Your task to perform on an android device: turn off notifications in google photos Image 0: 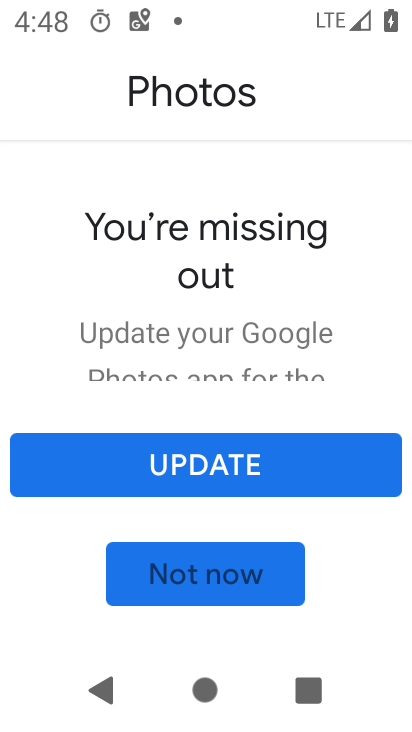
Step 0: press home button
Your task to perform on an android device: turn off notifications in google photos Image 1: 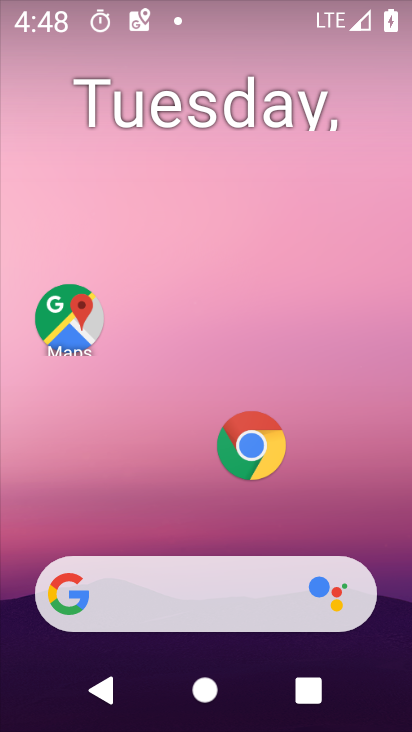
Step 1: drag from (193, 493) to (181, 4)
Your task to perform on an android device: turn off notifications in google photos Image 2: 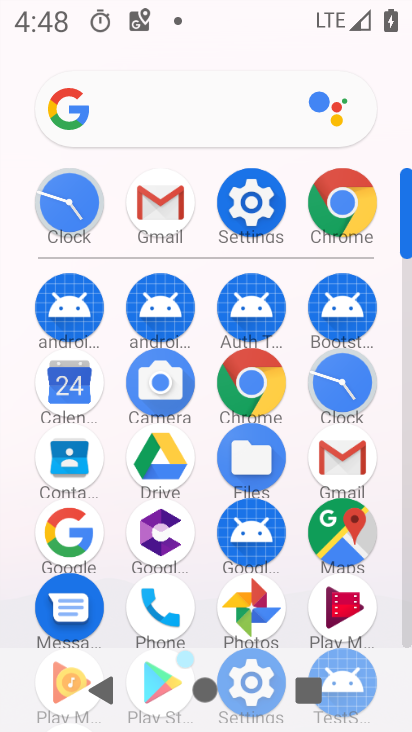
Step 2: click (244, 615)
Your task to perform on an android device: turn off notifications in google photos Image 3: 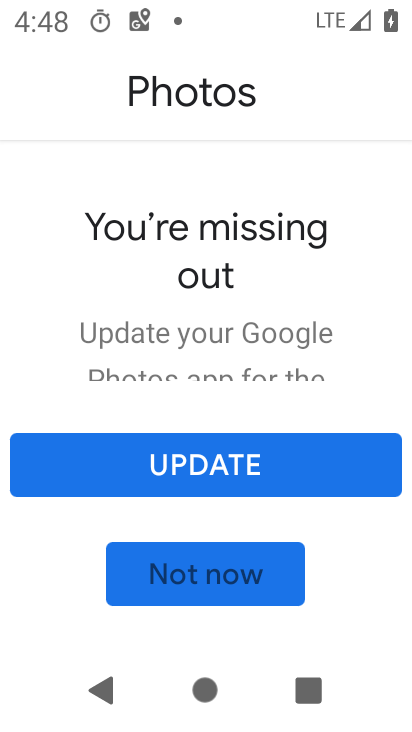
Step 3: click (222, 588)
Your task to perform on an android device: turn off notifications in google photos Image 4: 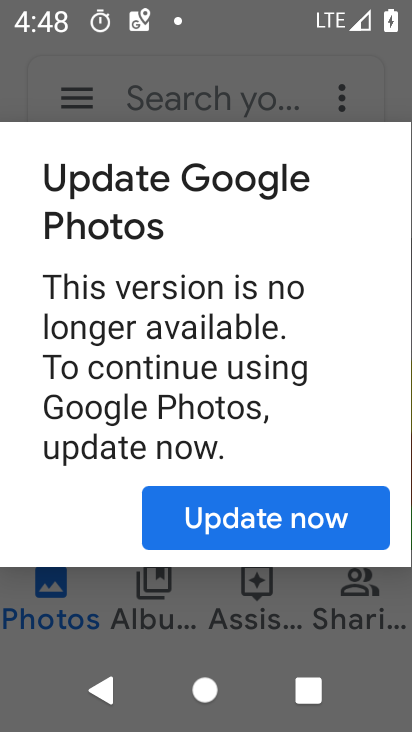
Step 4: click (290, 527)
Your task to perform on an android device: turn off notifications in google photos Image 5: 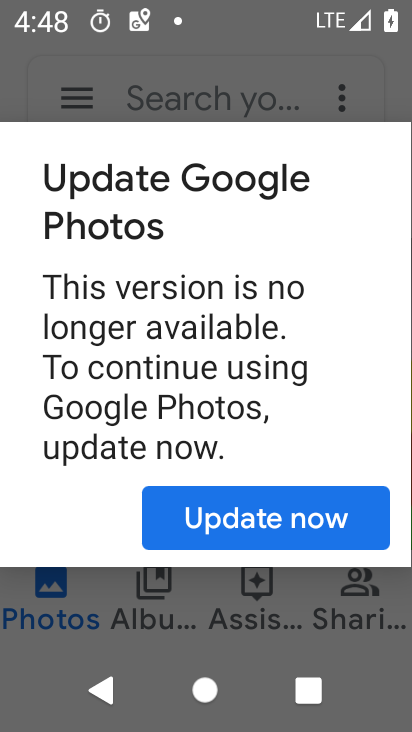
Step 5: click (294, 509)
Your task to perform on an android device: turn off notifications in google photos Image 6: 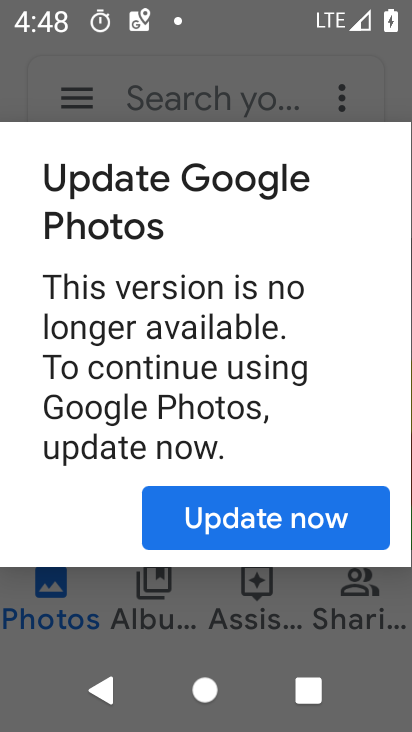
Step 6: click (294, 509)
Your task to perform on an android device: turn off notifications in google photos Image 7: 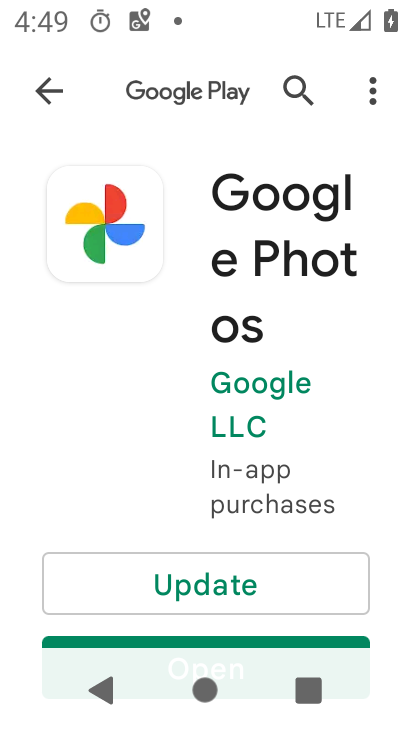
Step 7: drag from (232, 592) to (252, 173)
Your task to perform on an android device: turn off notifications in google photos Image 8: 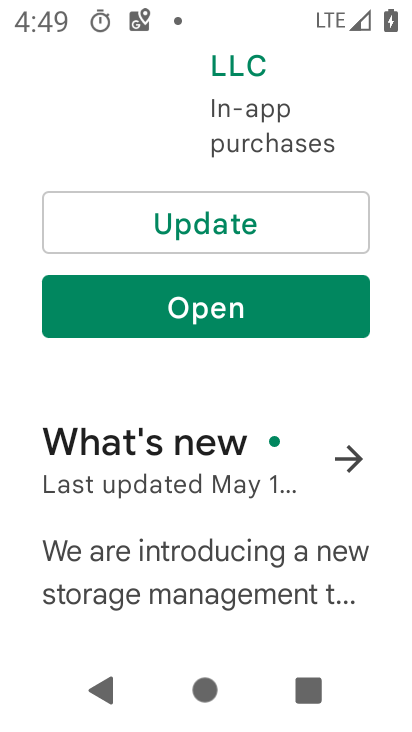
Step 8: click (213, 316)
Your task to perform on an android device: turn off notifications in google photos Image 9: 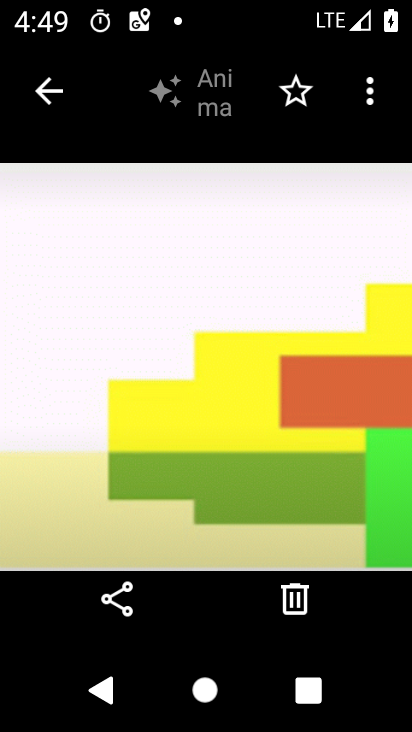
Step 9: click (62, 76)
Your task to perform on an android device: turn off notifications in google photos Image 10: 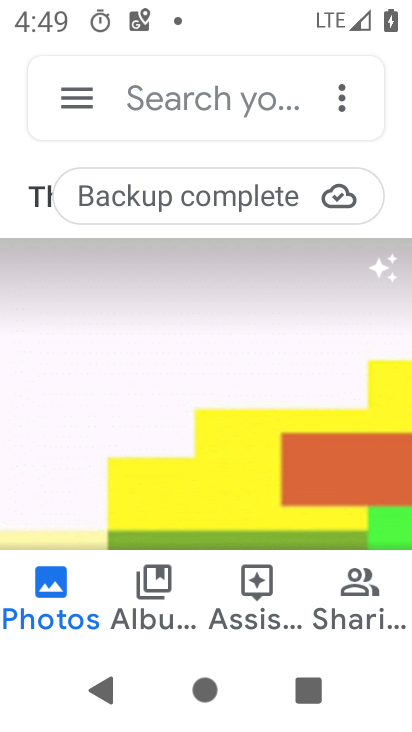
Step 10: click (64, 94)
Your task to perform on an android device: turn off notifications in google photos Image 11: 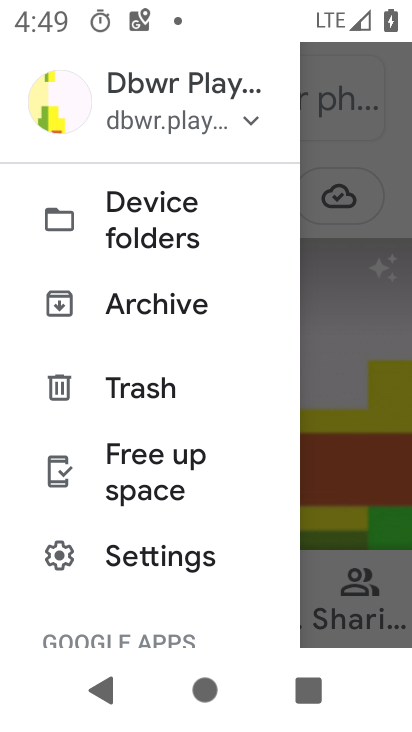
Step 11: click (140, 562)
Your task to perform on an android device: turn off notifications in google photos Image 12: 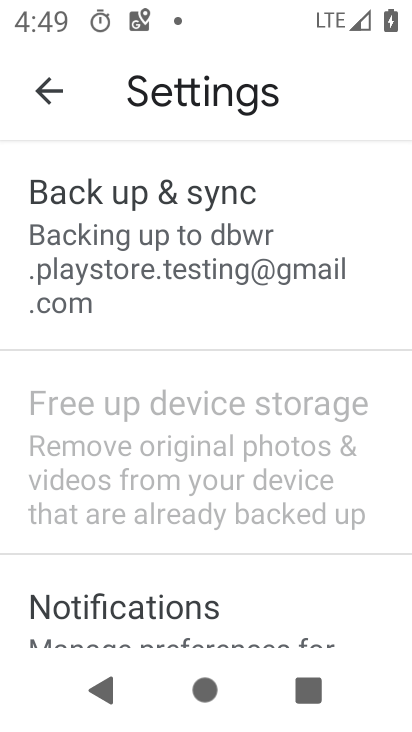
Step 12: drag from (216, 543) to (248, 213)
Your task to perform on an android device: turn off notifications in google photos Image 13: 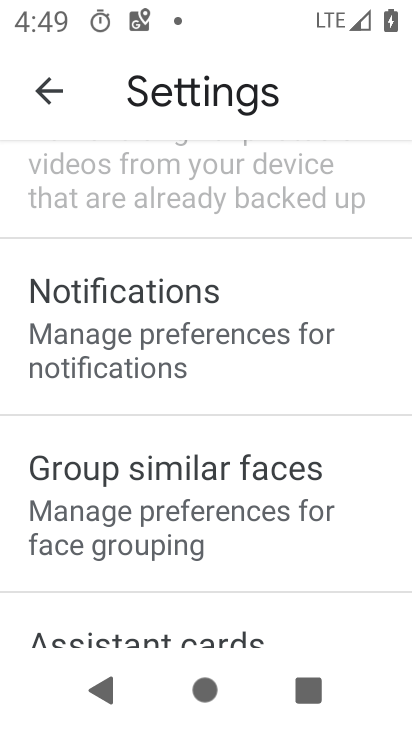
Step 13: click (149, 328)
Your task to perform on an android device: turn off notifications in google photos Image 14: 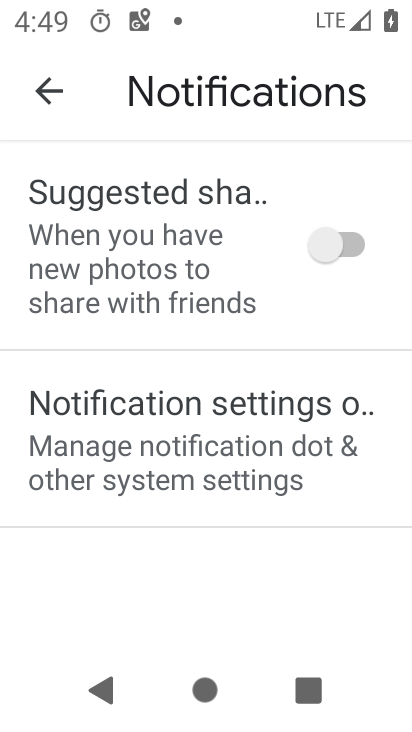
Step 14: click (193, 435)
Your task to perform on an android device: turn off notifications in google photos Image 15: 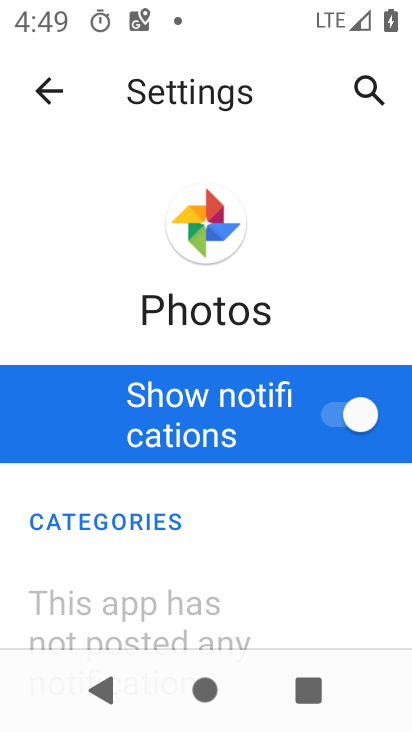
Step 15: click (321, 392)
Your task to perform on an android device: turn off notifications in google photos Image 16: 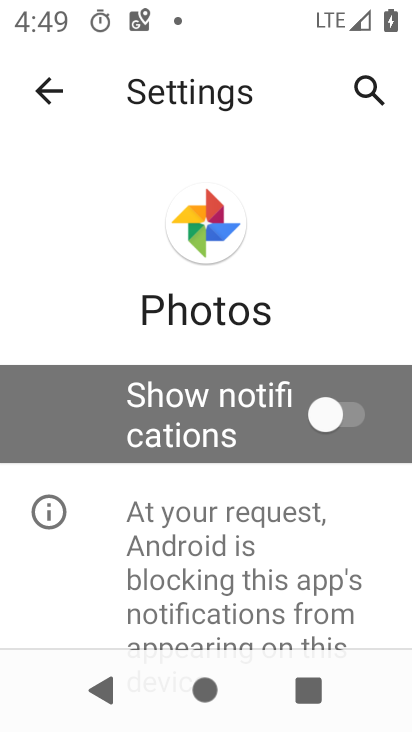
Step 16: task complete